Your task to perform on an android device: delete a single message in the gmail app Image 0: 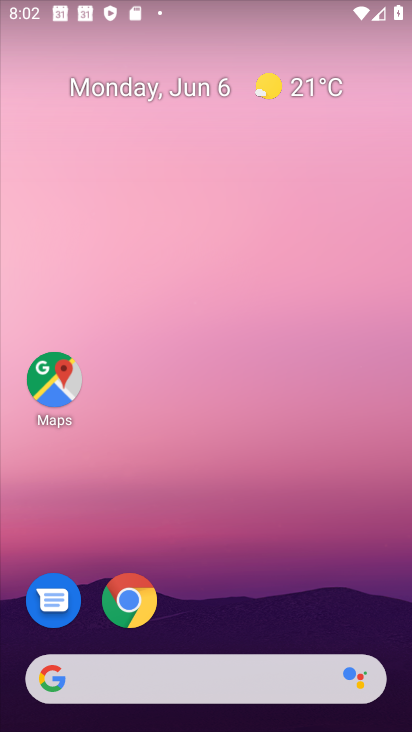
Step 0: drag from (212, 630) to (320, 91)
Your task to perform on an android device: delete a single message in the gmail app Image 1: 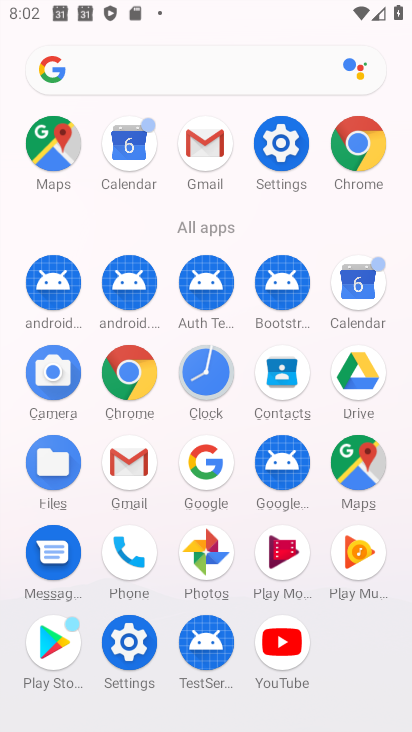
Step 1: click (138, 454)
Your task to perform on an android device: delete a single message in the gmail app Image 2: 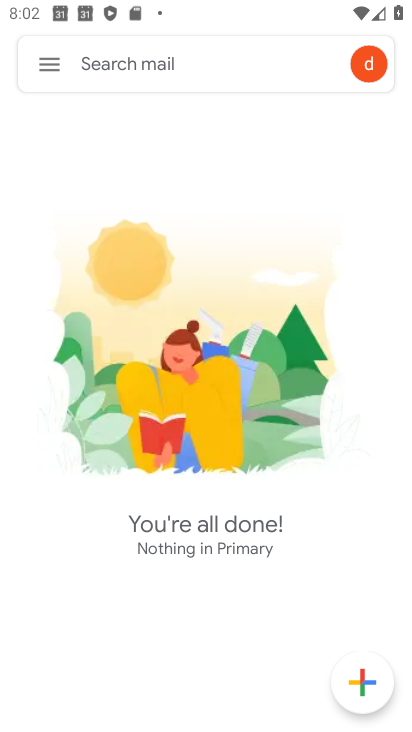
Step 2: click (47, 63)
Your task to perform on an android device: delete a single message in the gmail app Image 3: 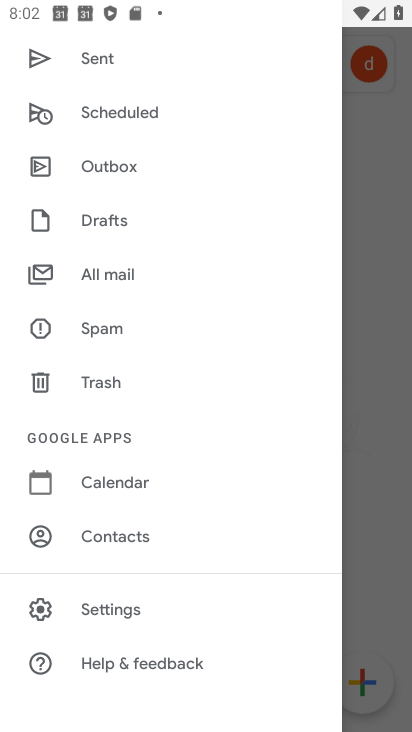
Step 3: click (106, 277)
Your task to perform on an android device: delete a single message in the gmail app Image 4: 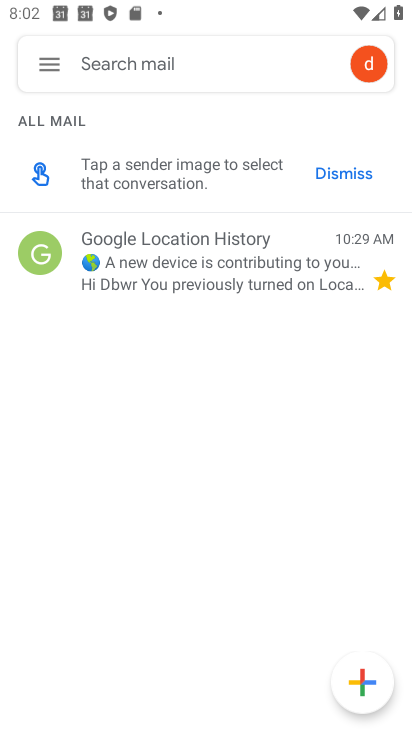
Step 4: click (55, 260)
Your task to perform on an android device: delete a single message in the gmail app Image 5: 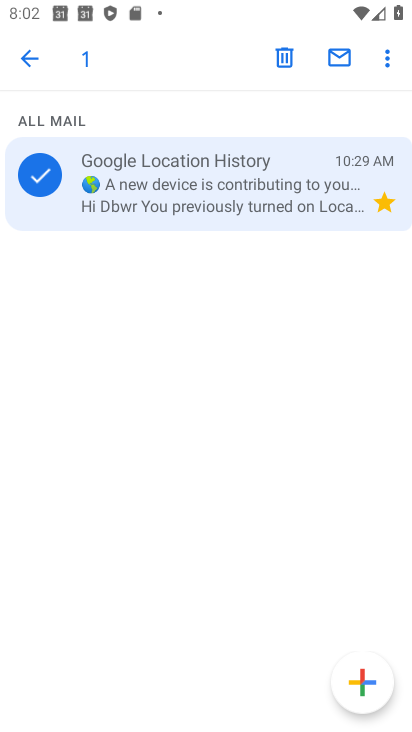
Step 5: click (281, 51)
Your task to perform on an android device: delete a single message in the gmail app Image 6: 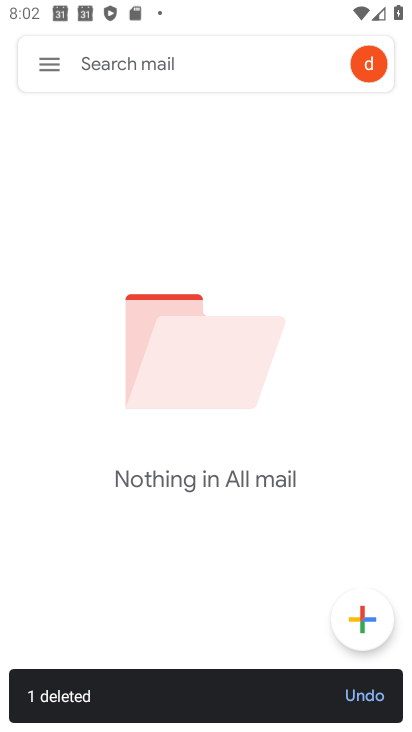
Step 6: task complete